Your task to perform on an android device: Open battery settings Image 0: 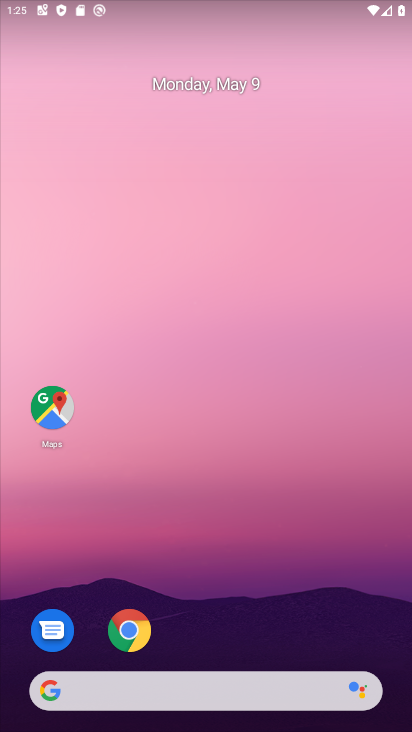
Step 0: drag from (301, 711) to (277, 274)
Your task to perform on an android device: Open battery settings Image 1: 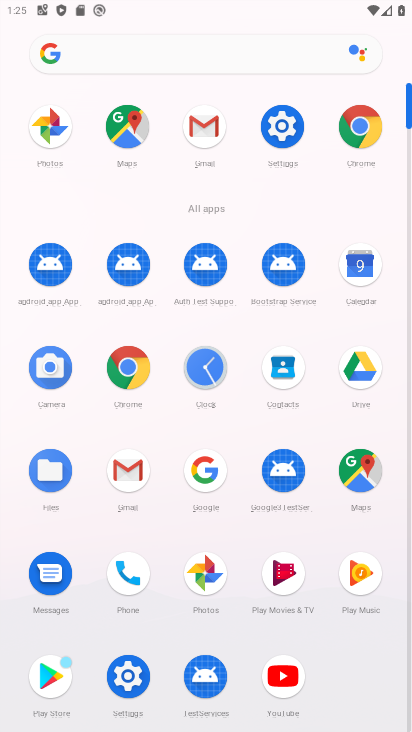
Step 1: click (275, 129)
Your task to perform on an android device: Open battery settings Image 2: 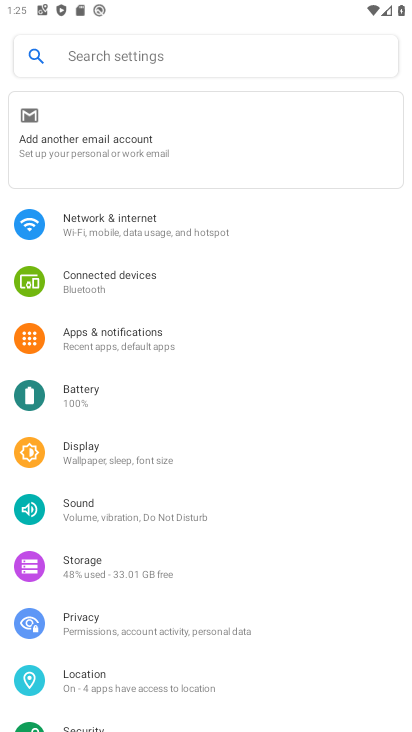
Step 2: click (118, 403)
Your task to perform on an android device: Open battery settings Image 3: 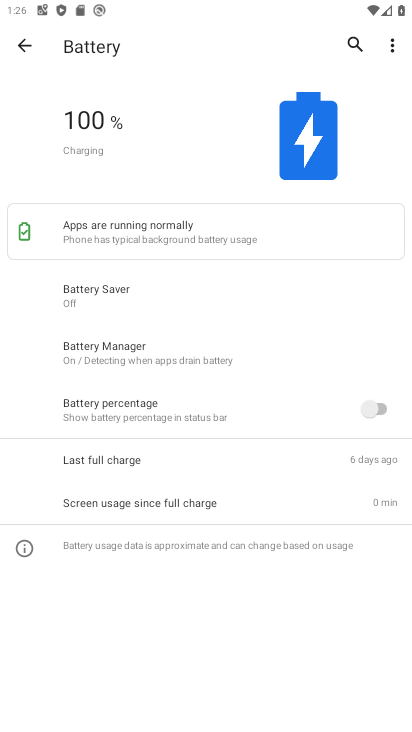
Step 3: task complete